Your task to perform on an android device: Is it going to rain today? Image 0: 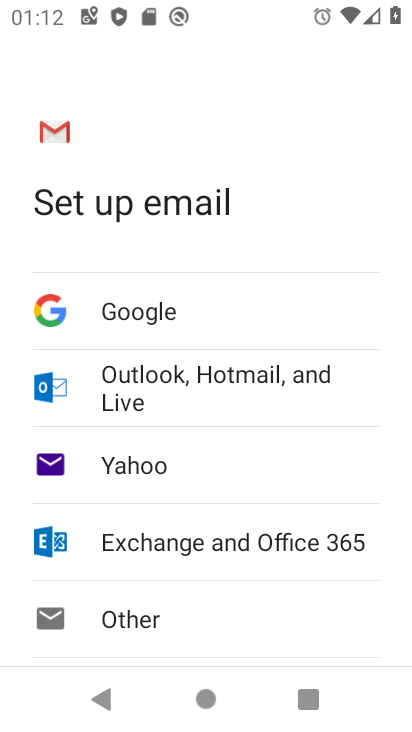
Step 0: press home button
Your task to perform on an android device: Is it going to rain today? Image 1: 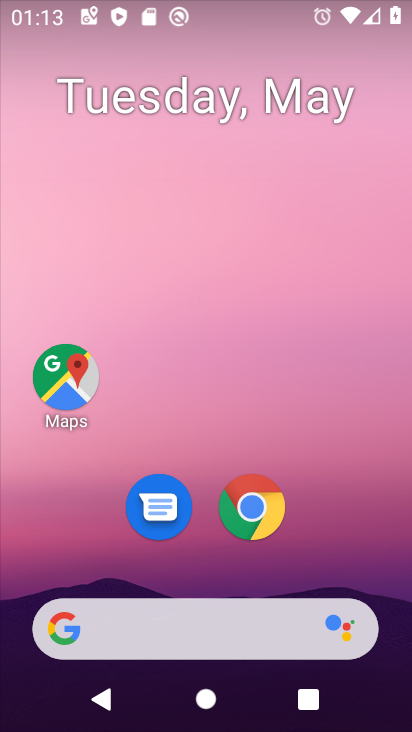
Step 1: drag from (197, 539) to (190, 281)
Your task to perform on an android device: Is it going to rain today? Image 2: 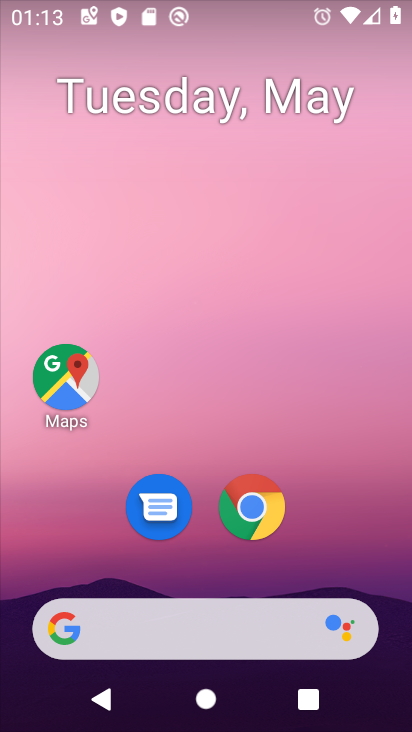
Step 2: drag from (232, 551) to (236, 162)
Your task to perform on an android device: Is it going to rain today? Image 3: 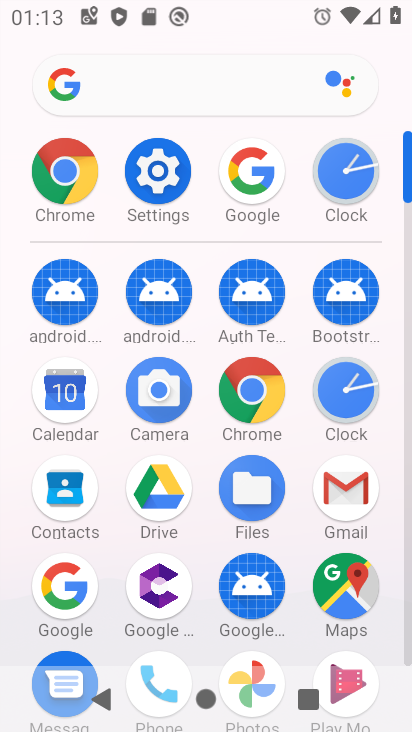
Step 3: click (71, 584)
Your task to perform on an android device: Is it going to rain today? Image 4: 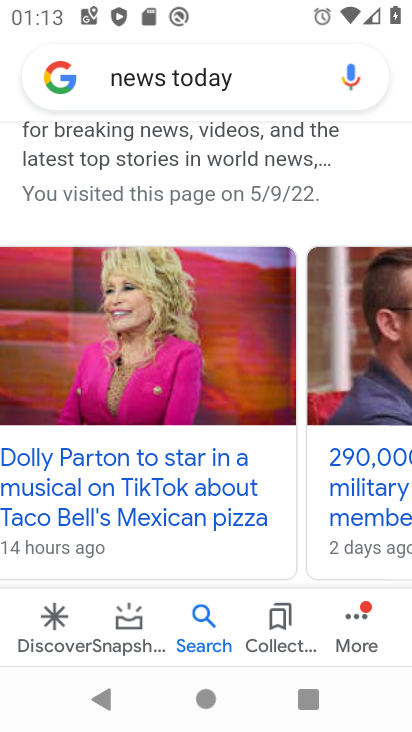
Step 4: click (249, 79)
Your task to perform on an android device: Is it going to rain today? Image 5: 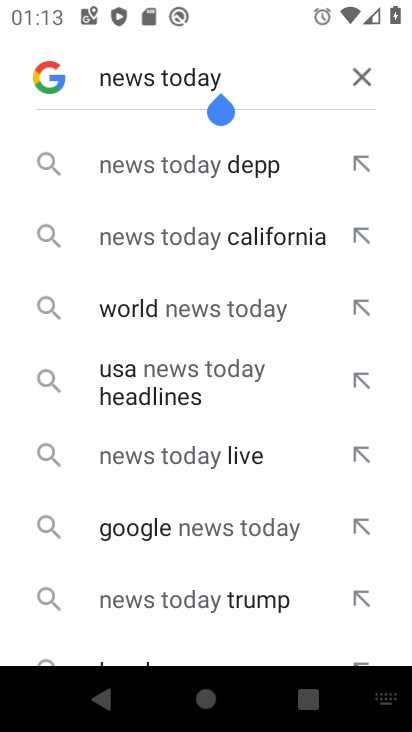
Step 5: click (364, 77)
Your task to perform on an android device: Is it going to rain today? Image 6: 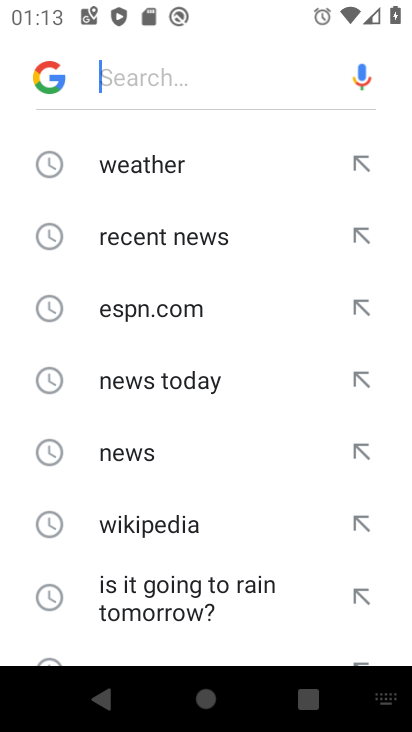
Step 6: click (186, 75)
Your task to perform on an android device: Is it going to rain today? Image 7: 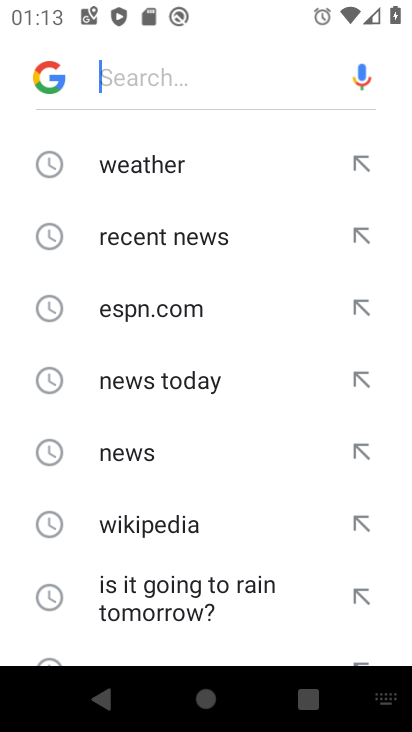
Step 7: drag from (185, 627) to (187, 298)
Your task to perform on an android device: Is it going to rain today? Image 8: 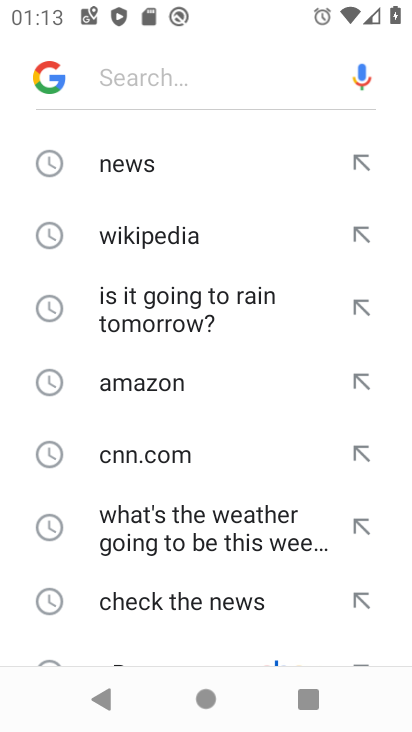
Step 8: click (122, 67)
Your task to perform on an android device: Is it going to rain today? Image 9: 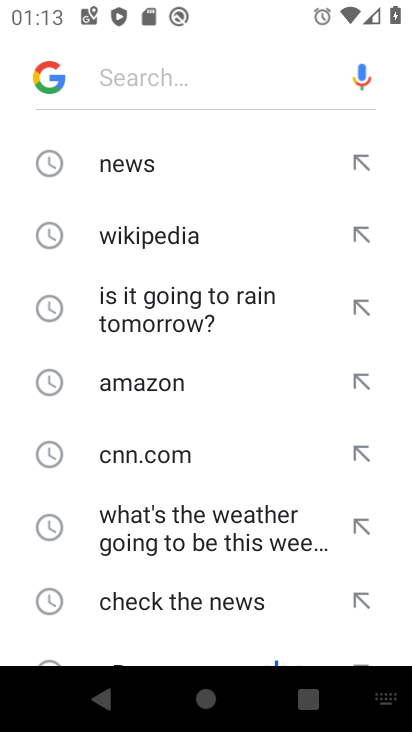
Step 9: type "is it going to rain today?"
Your task to perform on an android device: Is it going to rain today? Image 10: 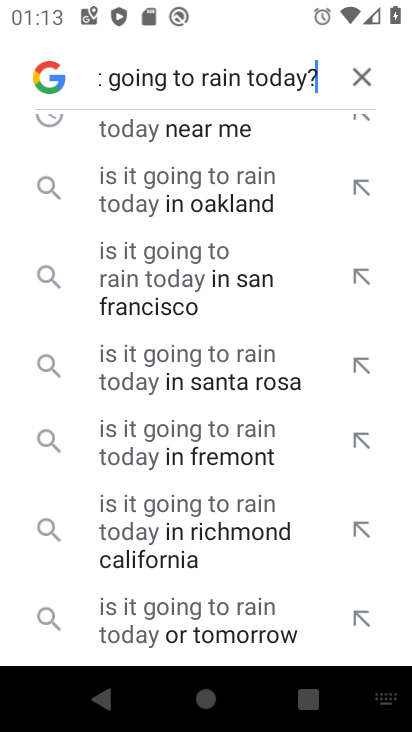
Step 10: drag from (258, 126) to (286, 478)
Your task to perform on an android device: Is it going to rain today? Image 11: 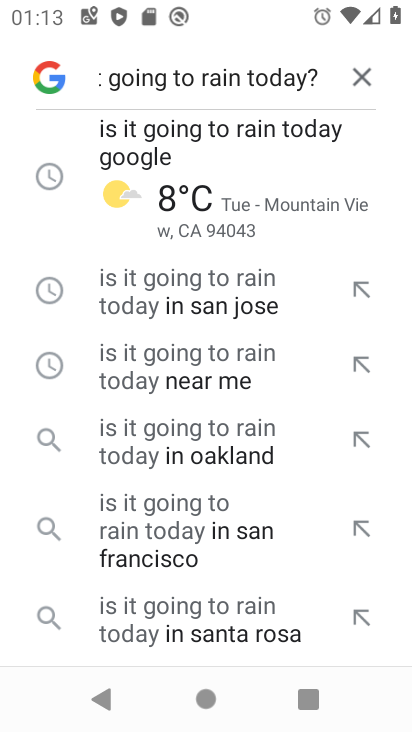
Step 11: click (188, 158)
Your task to perform on an android device: Is it going to rain today? Image 12: 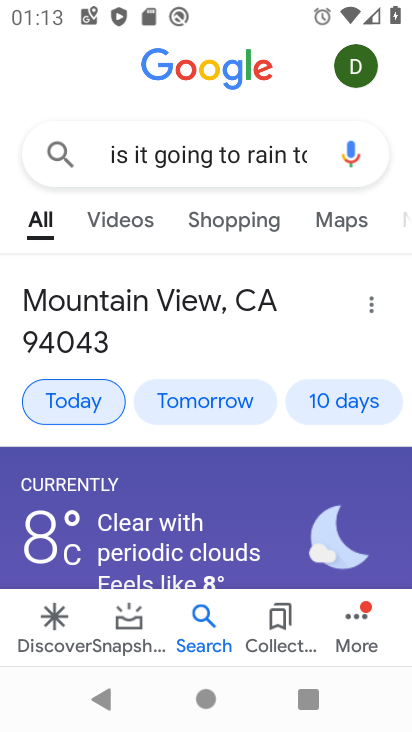
Step 12: task complete